Your task to perform on an android device: Add "dell alienware" to the cart on costco.com Image 0: 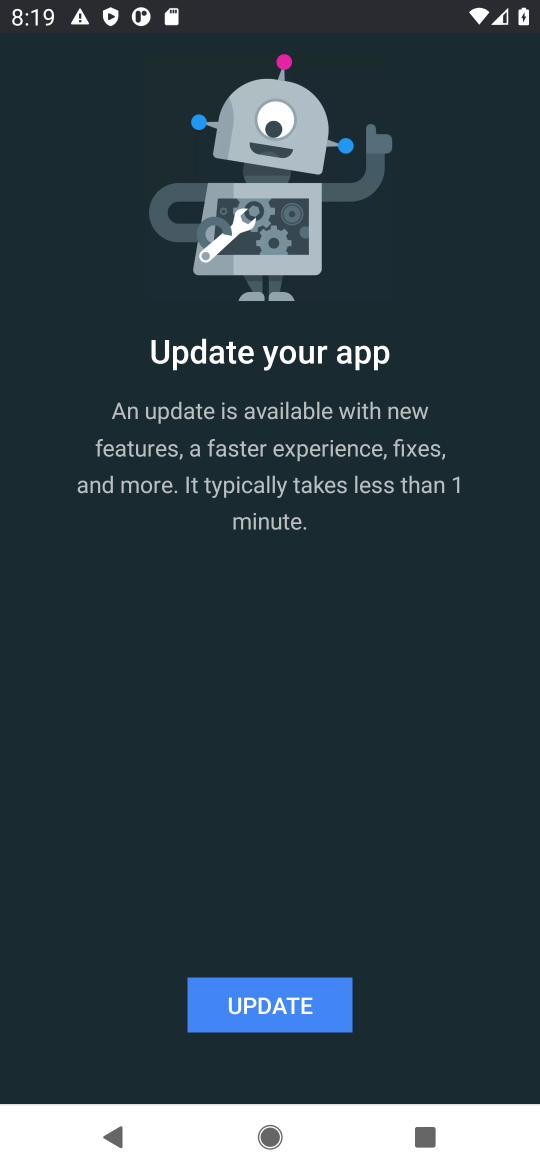
Step 0: press home button
Your task to perform on an android device: Add "dell alienware" to the cart on costco.com Image 1: 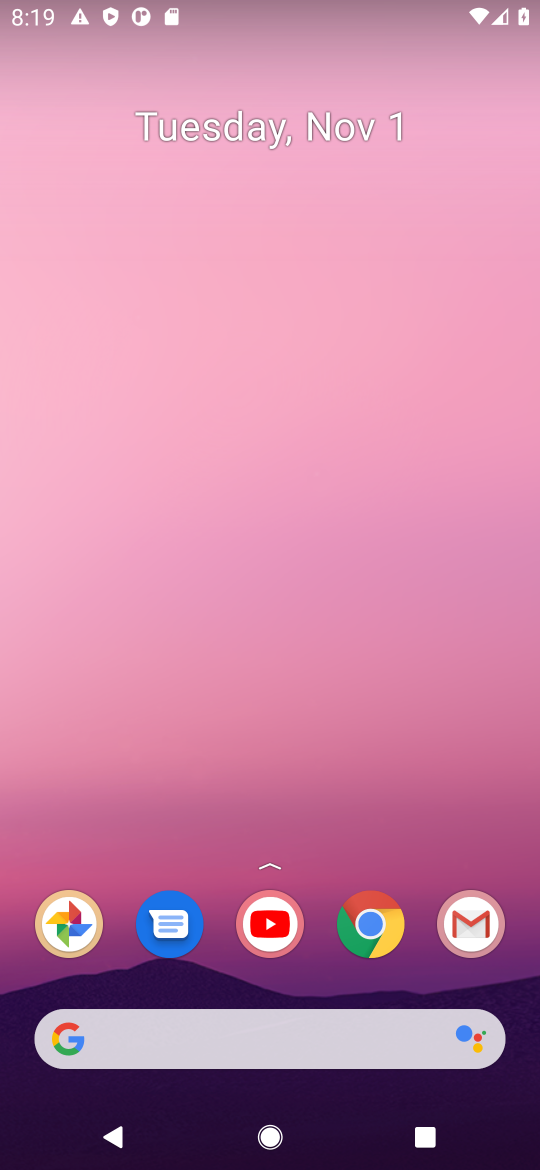
Step 1: click (101, 1028)
Your task to perform on an android device: Add "dell alienware" to the cart on costco.com Image 2: 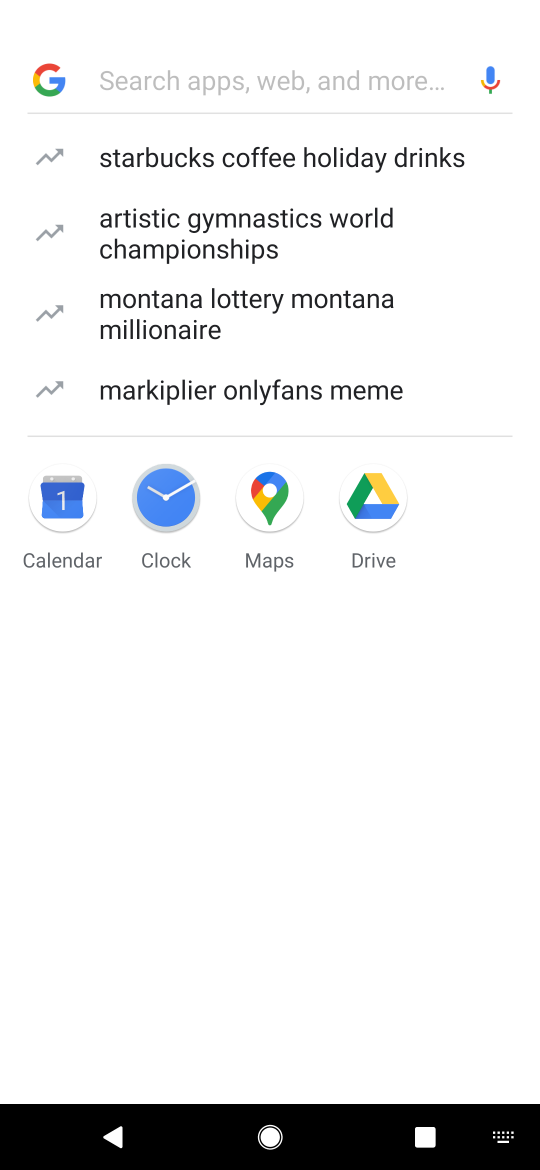
Step 2: type "costco.com"
Your task to perform on an android device: Add "dell alienware" to the cart on costco.com Image 3: 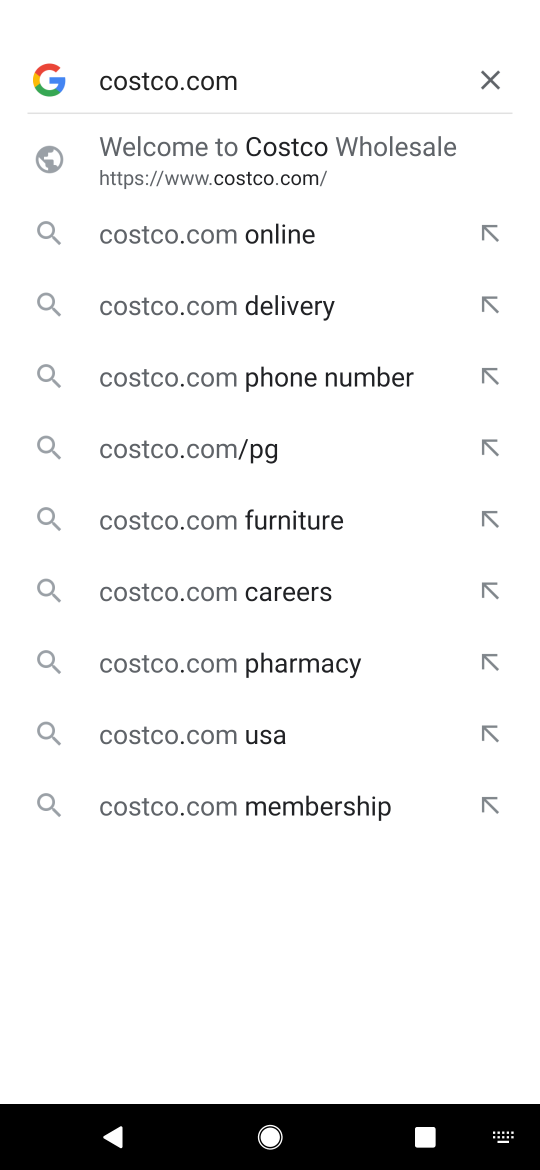
Step 3: press enter
Your task to perform on an android device: Add "dell alienware" to the cart on costco.com Image 4: 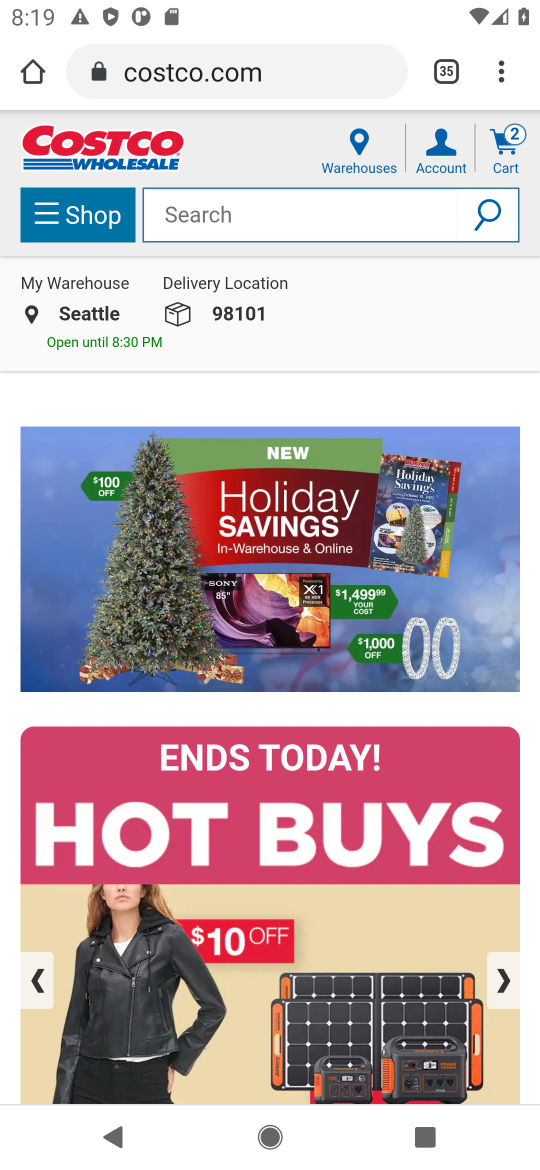
Step 4: click (206, 210)
Your task to perform on an android device: Add "dell alienware" to the cart on costco.com Image 5: 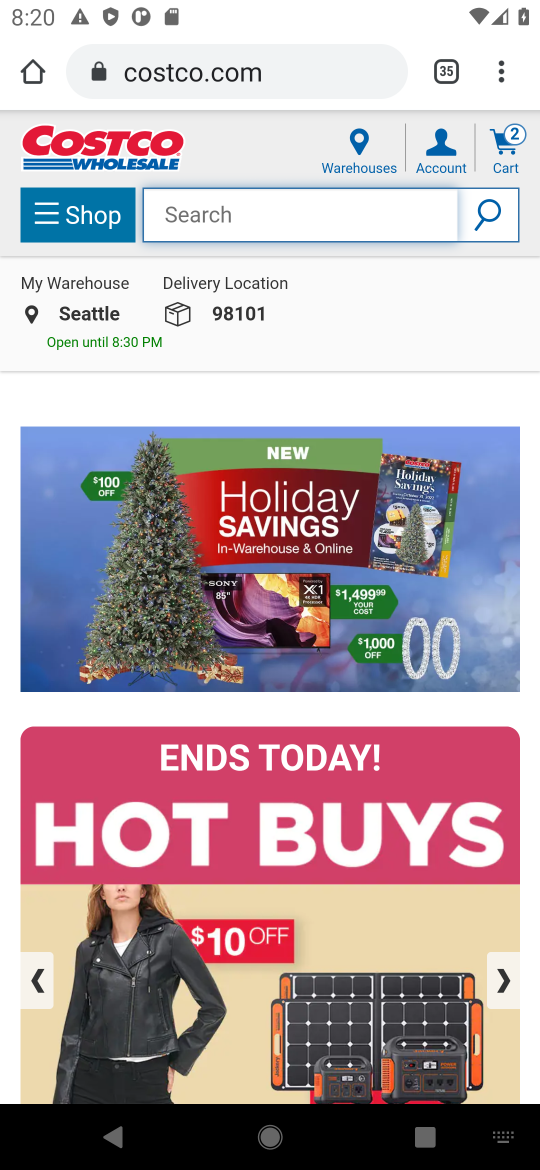
Step 5: type "dell alienware"
Your task to perform on an android device: Add "dell alienware" to the cart on costco.com Image 6: 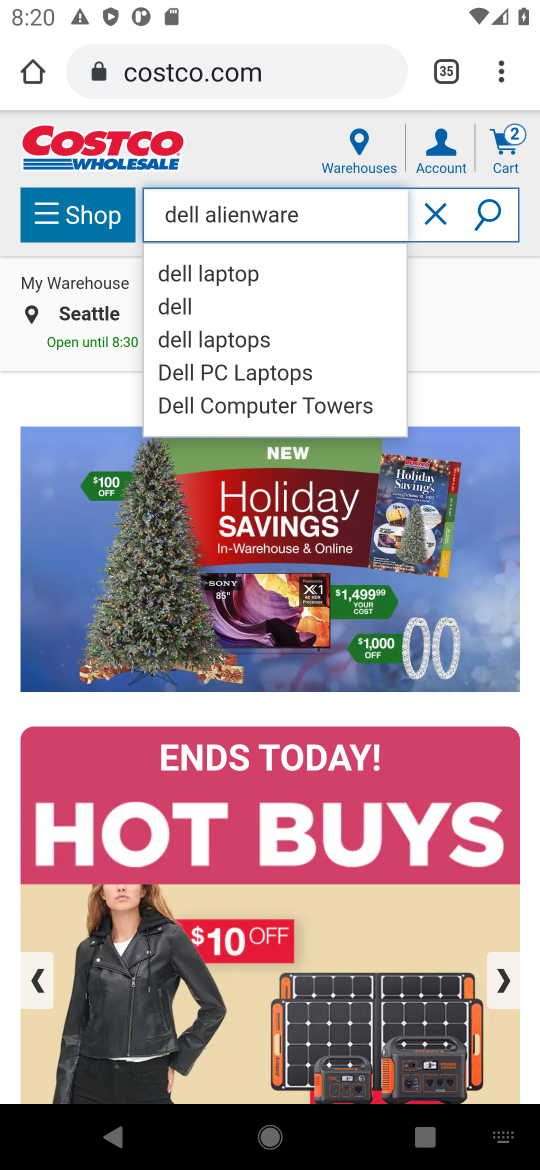
Step 6: click (492, 213)
Your task to perform on an android device: Add "dell alienware" to the cart on costco.com Image 7: 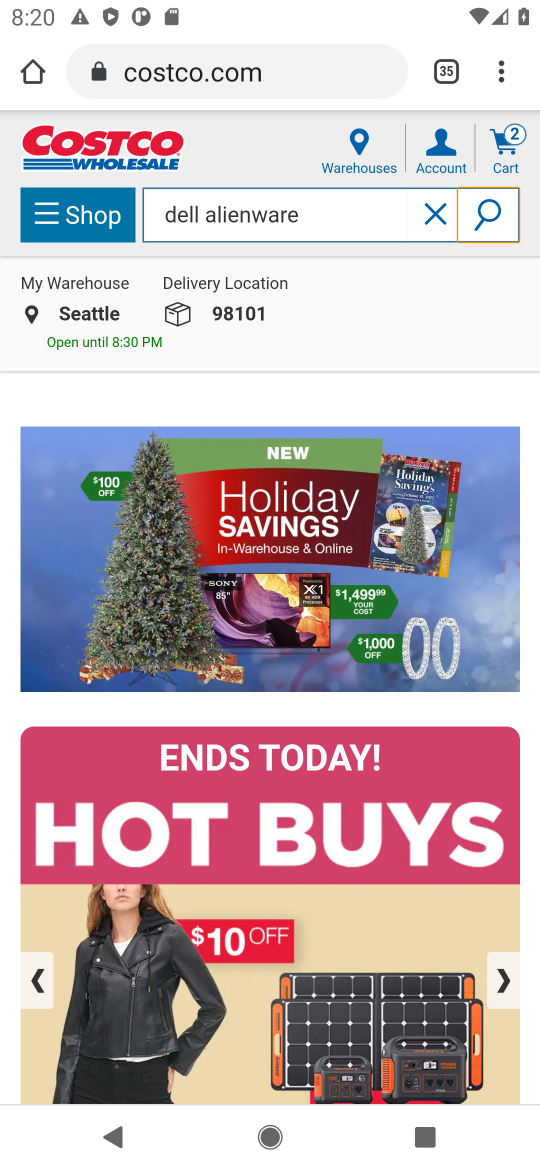
Step 7: click (484, 203)
Your task to perform on an android device: Add "dell alienware" to the cart on costco.com Image 8: 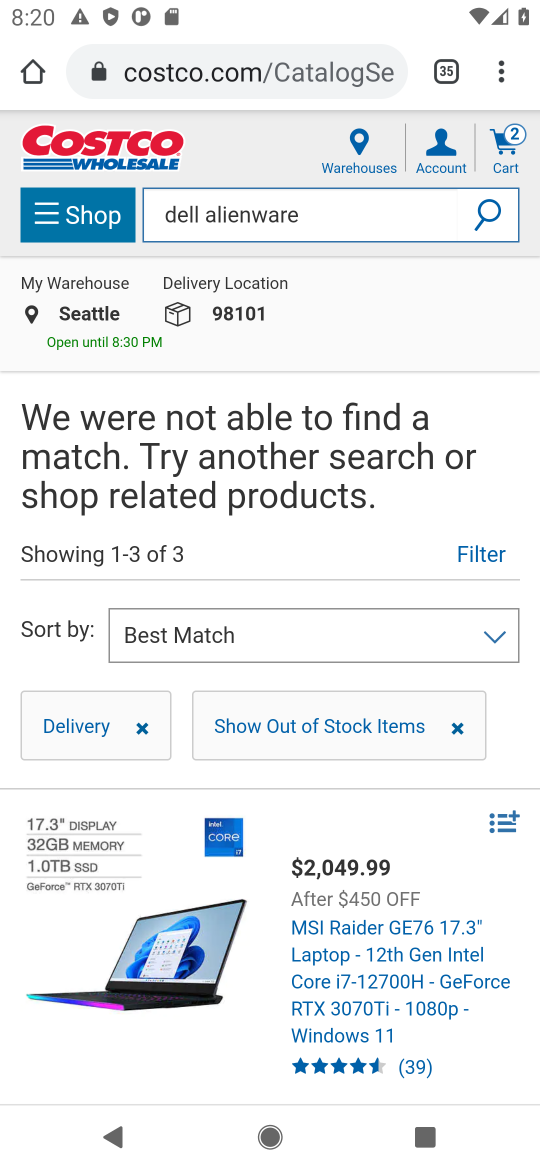
Step 8: task complete